Your task to perform on an android device: Check the weather Image 0: 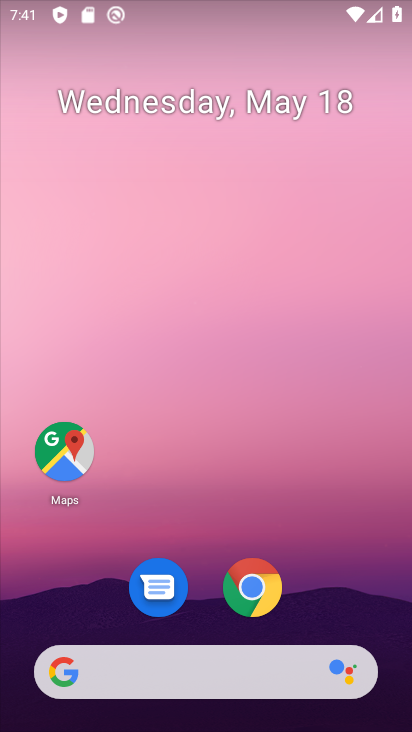
Step 0: drag from (213, 666) to (299, 147)
Your task to perform on an android device: Check the weather Image 1: 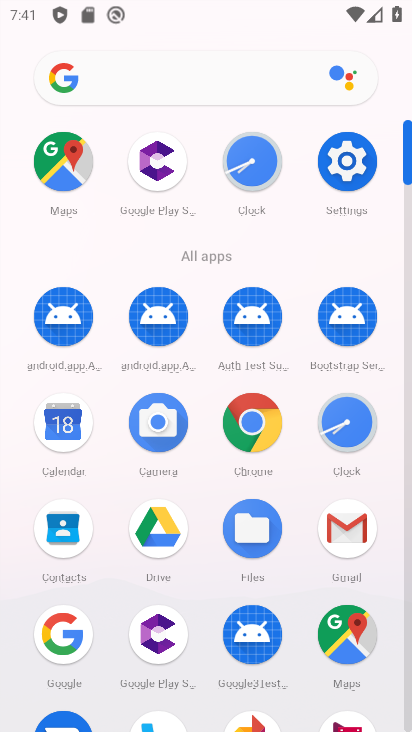
Step 1: drag from (230, 503) to (306, 172)
Your task to perform on an android device: Check the weather Image 2: 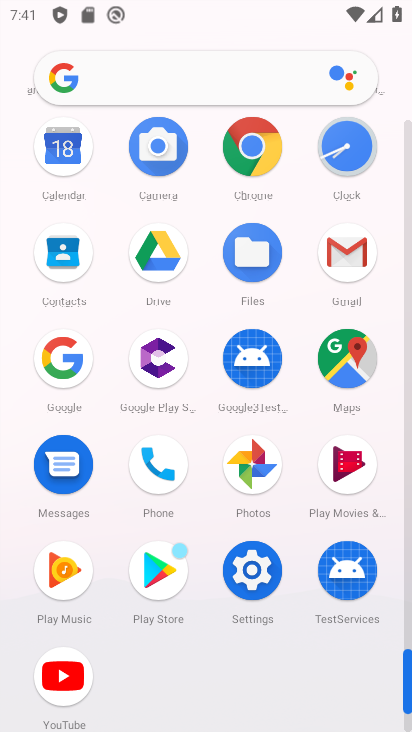
Step 2: click (76, 377)
Your task to perform on an android device: Check the weather Image 3: 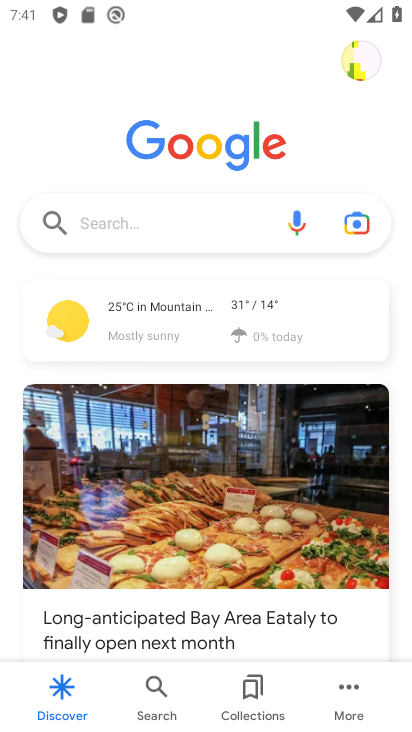
Step 3: click (169, 227)
Your task to perform on an android device: Check the weather Image 4: 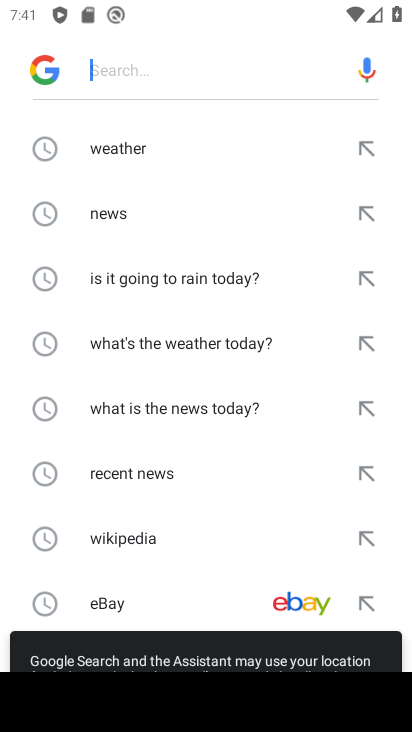
Step 4: click (209, 152)
Your task to perform on an android device: Check the weather Image 5: 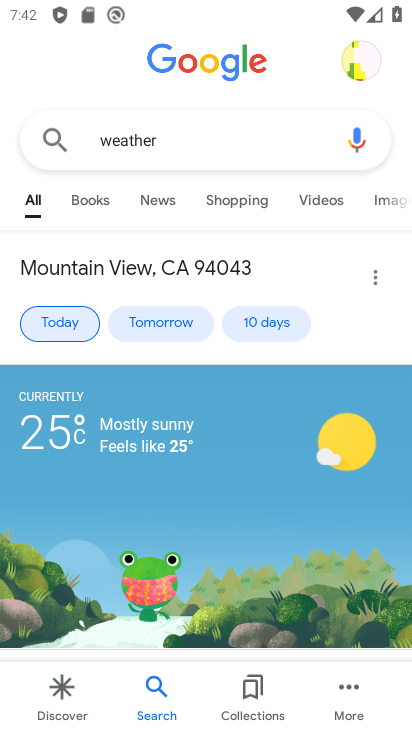
Step 5: task complete